Your task to perform on an android device: Search for Italian restaurants on Maps Image 0: 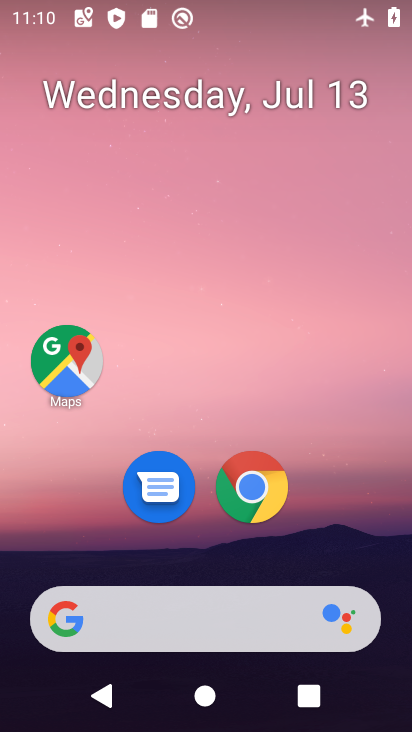
Step 0: click (69, 365)
Your task to perform on an android device: Search for Italian restaurants on Maps Image 1: 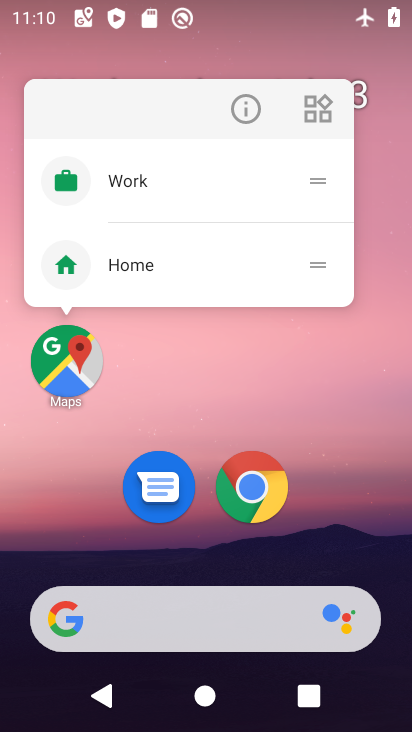
Step 1: click (82, 381)
Your task to perform on an android device: Search for Italian restaurants on Maps Image 2: 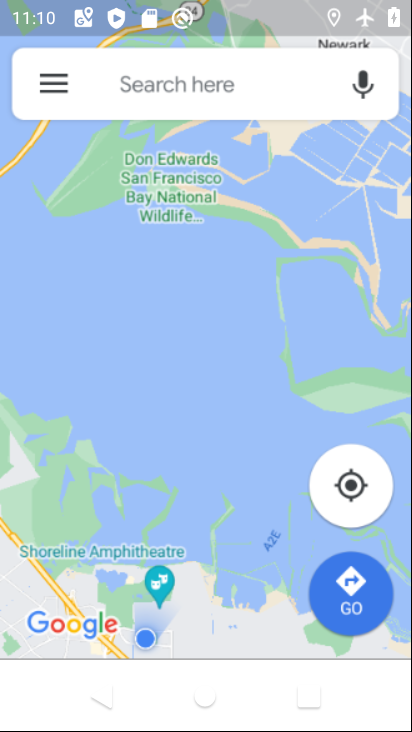
Step 2: click (177, 80)
Your task to perform on an android device: Search for Italian restaurants on Maps Image 3: 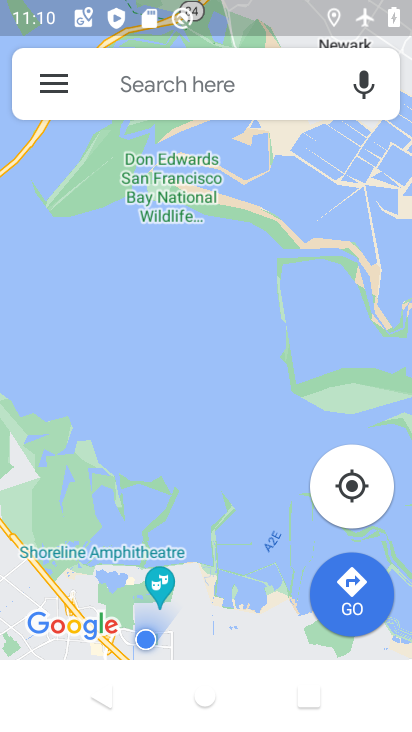
Step 3: click (214, 89)
Your task to perform on an android device: Search for Italian restaurants on Maps Image 4: 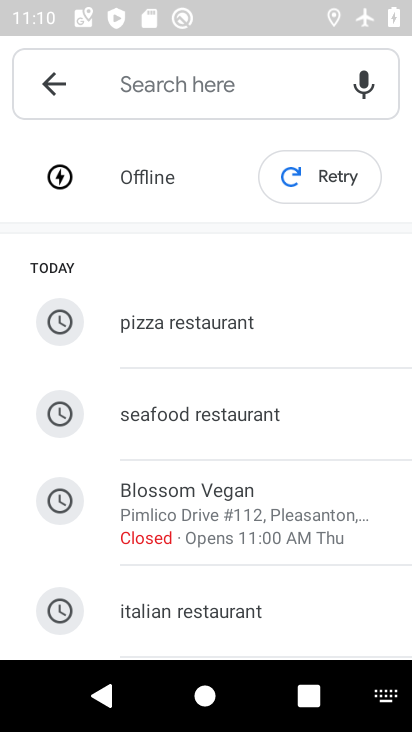
Step 4: drag from (255, 692) to (337, 488)
Your task to perform on an android device: Search for Italian restaurants on Maps Image 5: 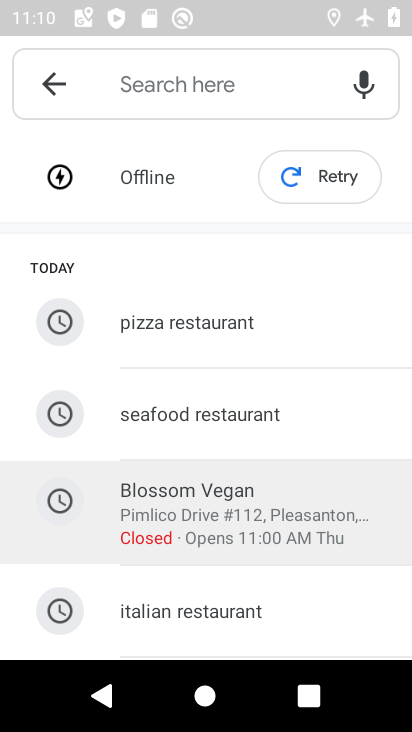
Step 5: click (75, 588)
Your task to perform on an android device: Search for Italian restaurants on Maps Image 6: 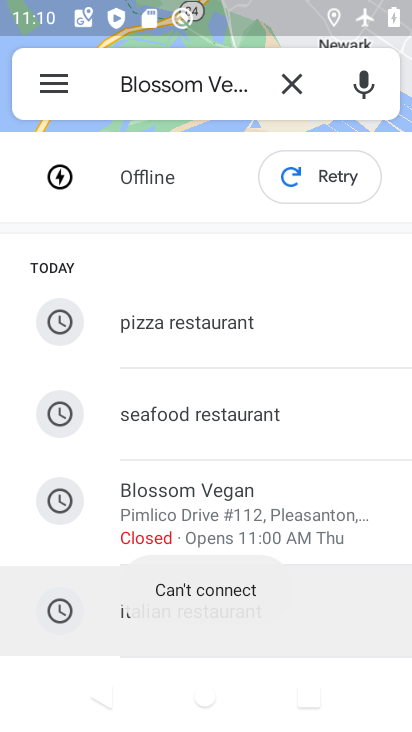
Step 6: click (85, 590)
Your task to perform on an android device: Search for Italian restaurants on Maps Image 7: 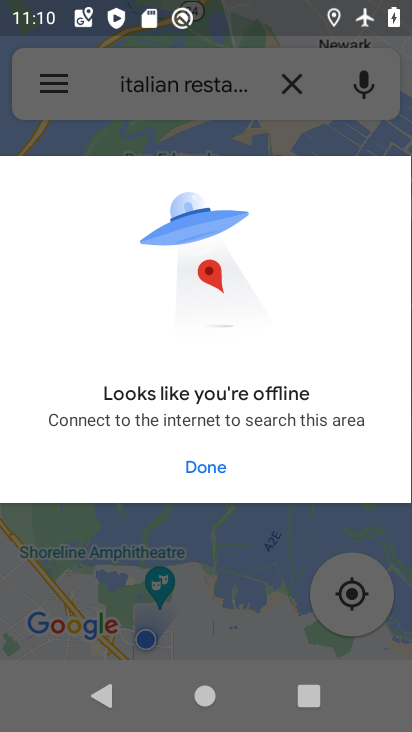
Step 7: click (178, 462)
Your task to perform on an android device: Search for Italian restaurants on Maps Image 8: 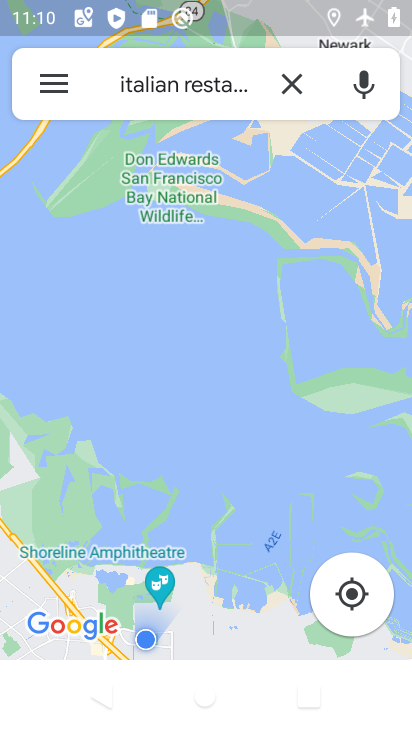
Step 8: task complete